Your task to perform on an android device: Turn on the flashlight Image 0: 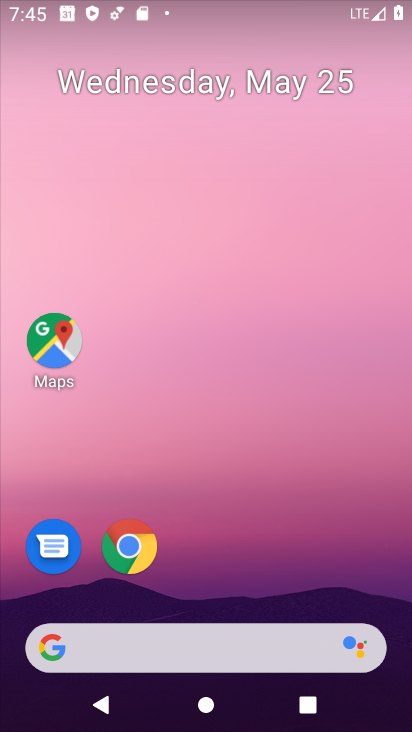
Step 0: drag from (264, 0) to (270, 257)
Your task to perform on an android device: Turn on the flashlight Image 1: 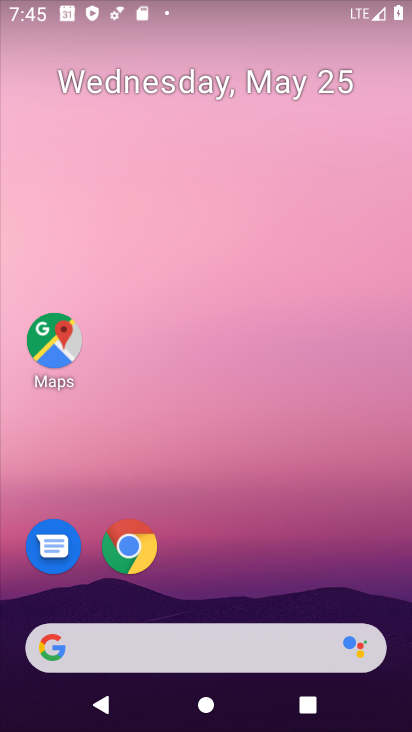
Step 1: drag from (265, 11) to (258, 355)
Your task to perform on an android device: Turn on the flashlight Image 2: 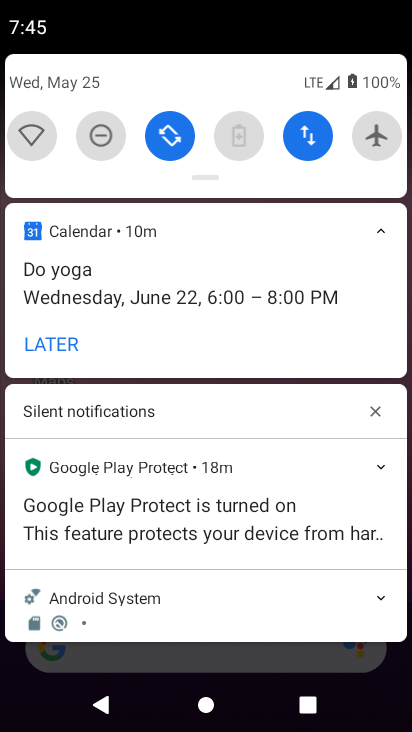
Step 2: drag from (272, 64) to (294, 356)
Your task to perform on an android device: Turn on the flashlight Image 3: 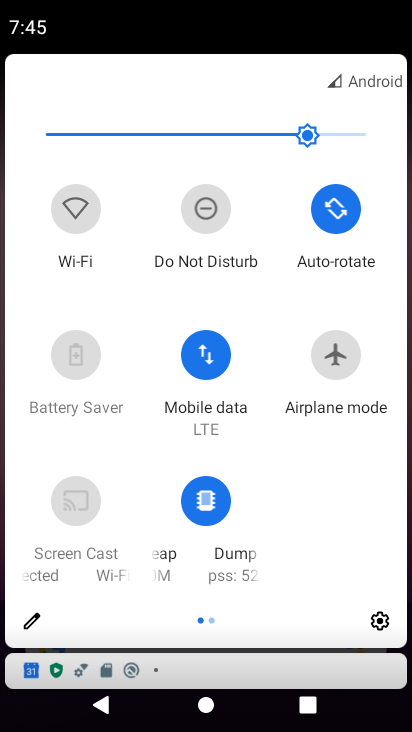
Step 3: click (34, 623)
Your task to perform on an android device: Turn on the flashlight Image 4: 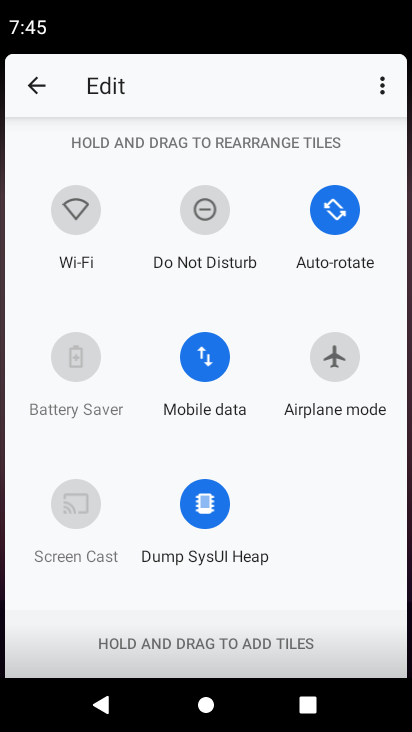
Step 4: task complete